Your task to perform on an android device: open sync settings in chrome Image 0: 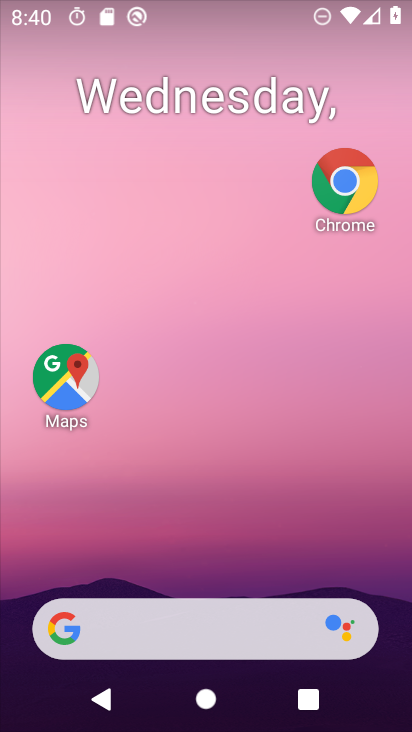
Step 0: drag from (304, 667) to (228, 180)
Your task to perform on an android device: open sync settings in chrome Image 1: 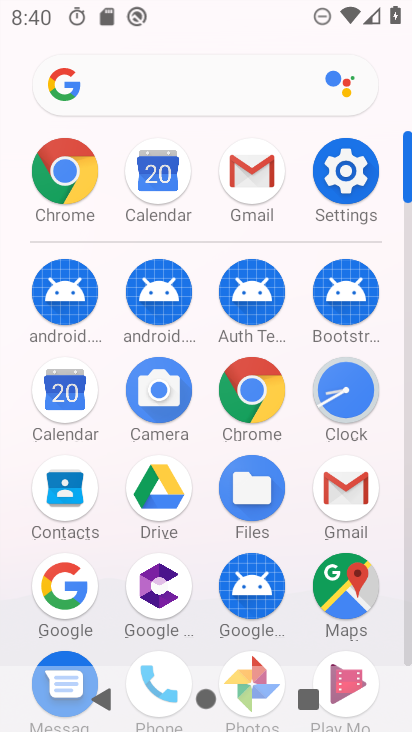
Step 1: click (73, 207)
Your task to perform on an android device: open sync settings in chrome Image 2: 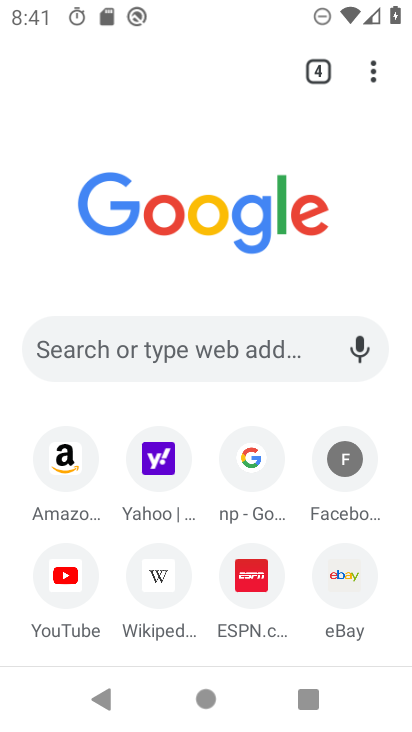
Step 2: click (374, 72)
Your task to perform on an android device: open sync settings in chrome Image 3: 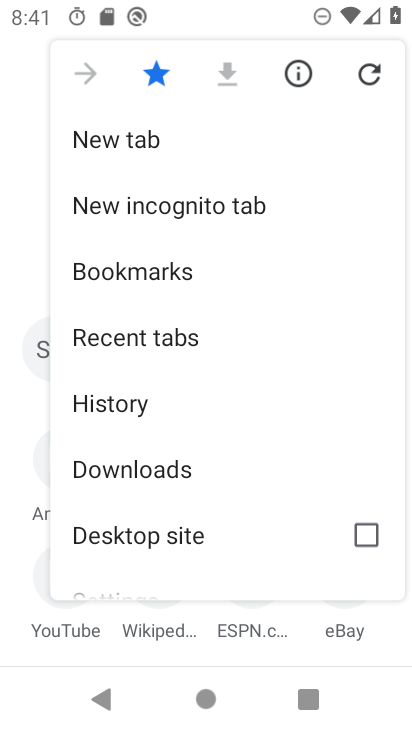
Step 3: click (123, 591)
Your task to perform on an android device: open sync settings in chrome Image 4: 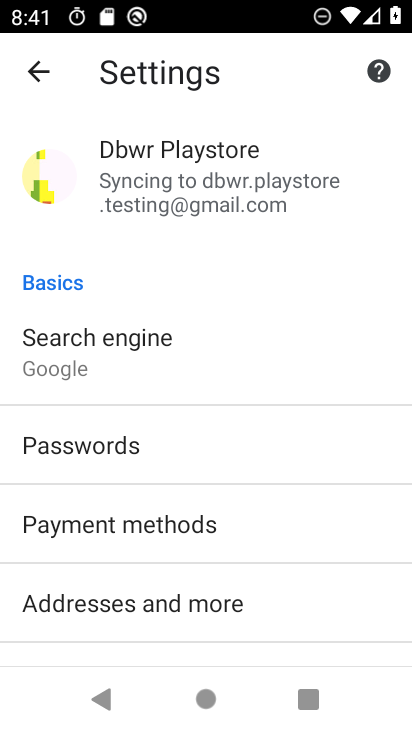
Step 4: drag from (137, 580) to (143, 471)
Your task to perform on an android device: open sync settings in chrome Image 5: 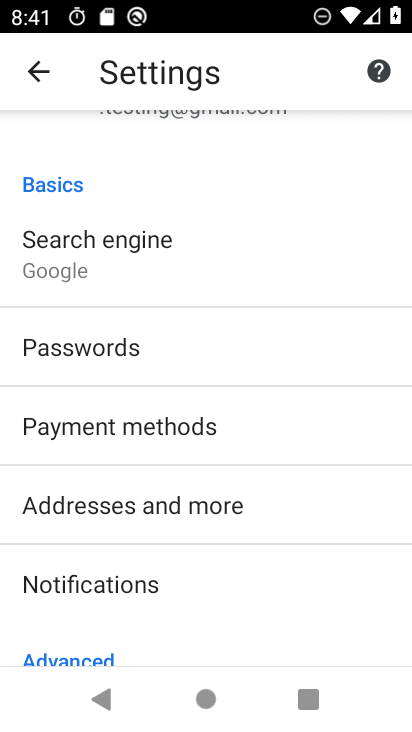
Step 5: drag from (148, 458) to (168, 291)
Your task to perform on an android device: open sync settings in chrome Image 6: 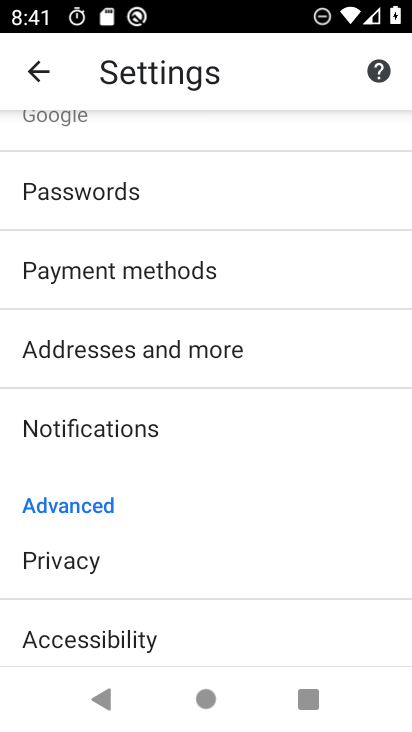
Step 6: drag from (125, 565) to (144, 355)
Your task to perform on an android device: open sync settings in chrome Image 7: 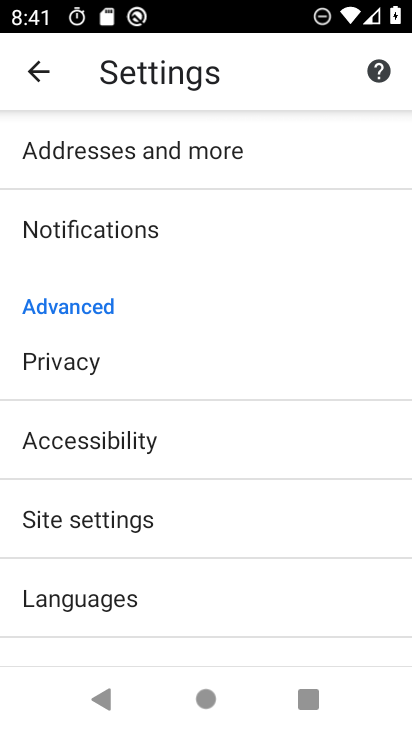
Step 7: click (89, 529)
Your task to perform on an android device: open sync settings in chrome Image 8: 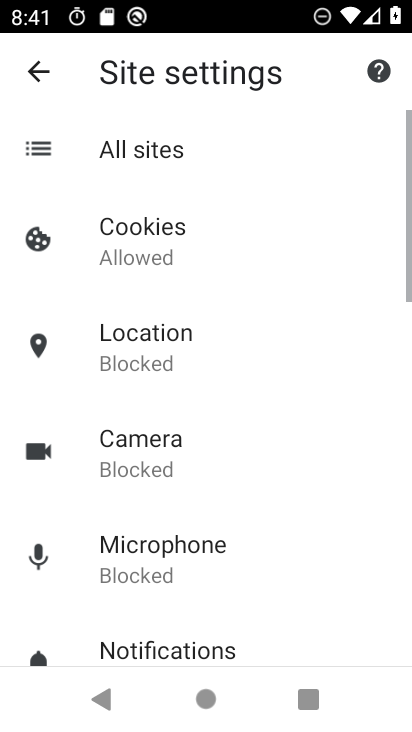
Step 8: drag from (140, 593) to (197, 238)
Your task to perform on an android device: open sync settings in chrome Image 9: 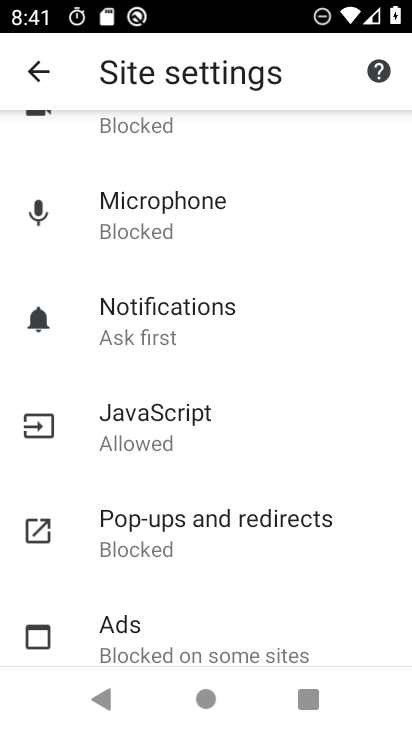
Step 9: drag from (138, 584) to (167, 375)
Your task to perform on an android device: open sync settings in chrome Image 10: 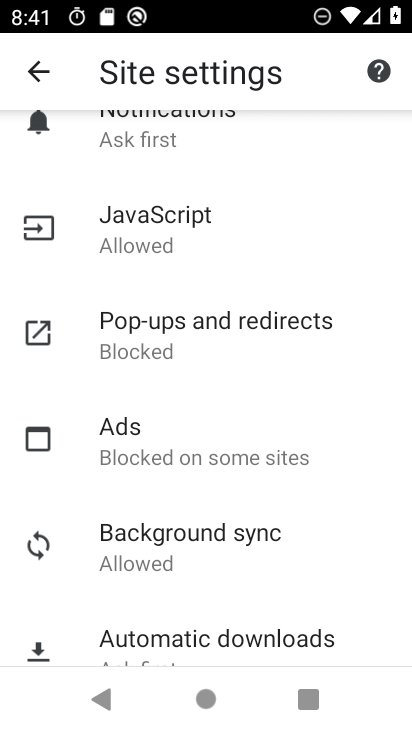
Step 10: click (190, 554)
Your task to perform on an android device: open sync settings in chrome Image 11: 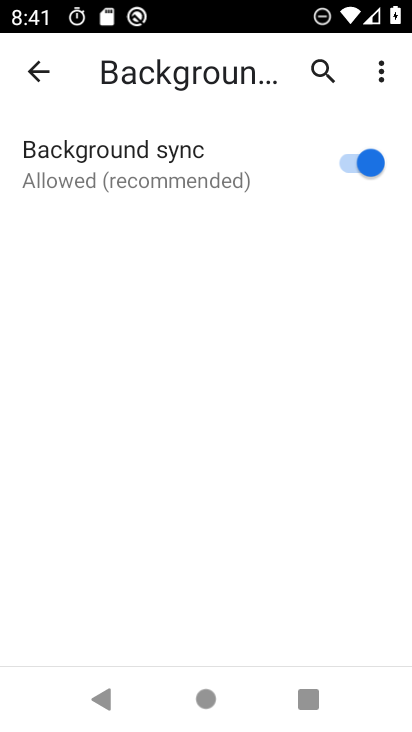
Step 11: task complete